Your task to perform on an android device: Go to Android settings Image 0: 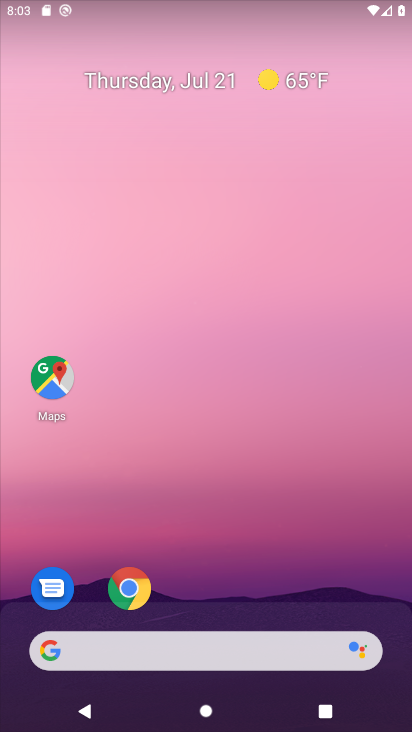
Step 0: drag from (214, 628) to (108, 47)
Your task to perform on an android device: Go to Android settings Image 1: 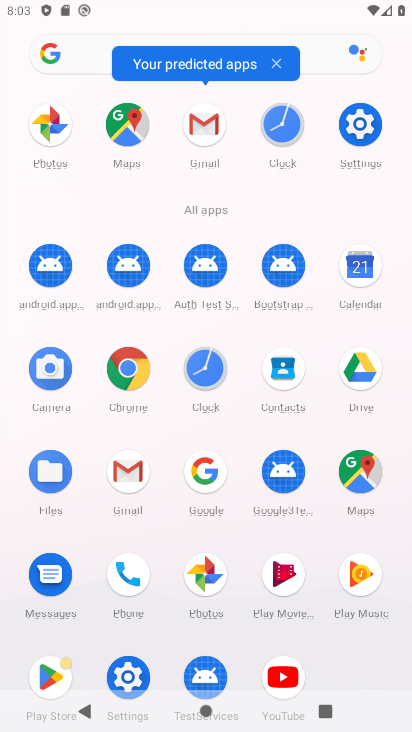
Step 1: click (366, 139)
Your task to perform on an android device: Go to Android settings Image 2: 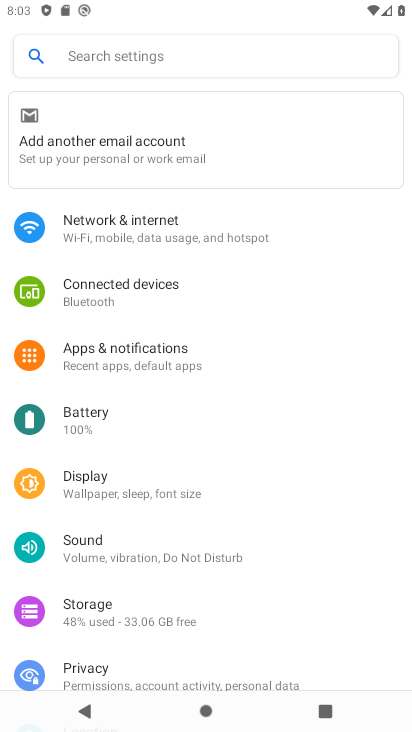
Step 2: click (152, 220)
Your task to perform on an android device: Go to Android settings Image 3: 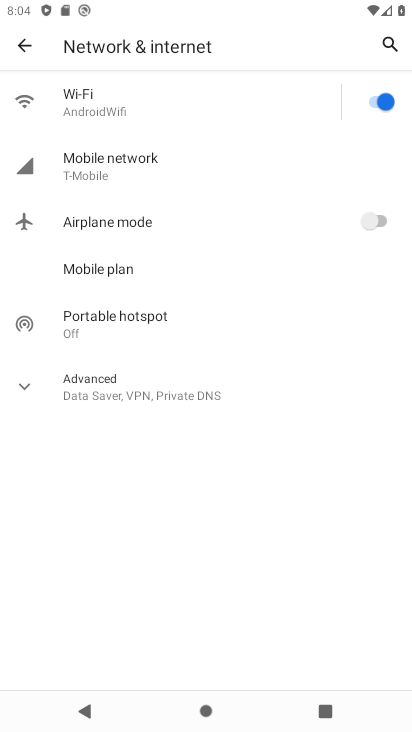
Step 3: click (118, 175)
Your task to perform on an android device: Go to Android settings Image 4: 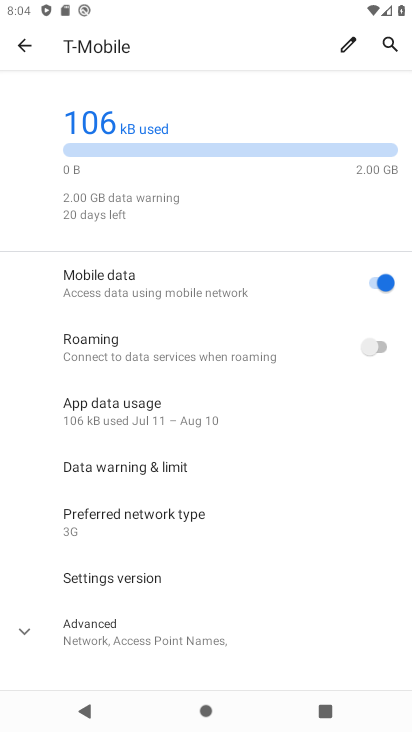
Step 4: click (149, 635)
Your task to perform on an android device: Go to Android settings Image 5: 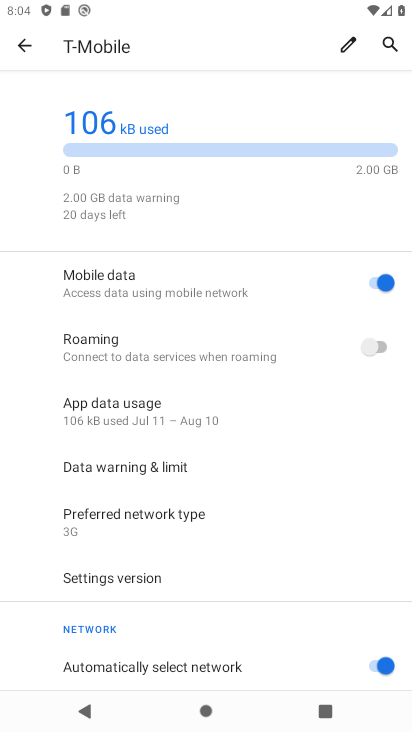
Step 5: click (20, 53)
Your task to perform on an android device: Go to Android settings Image 6: 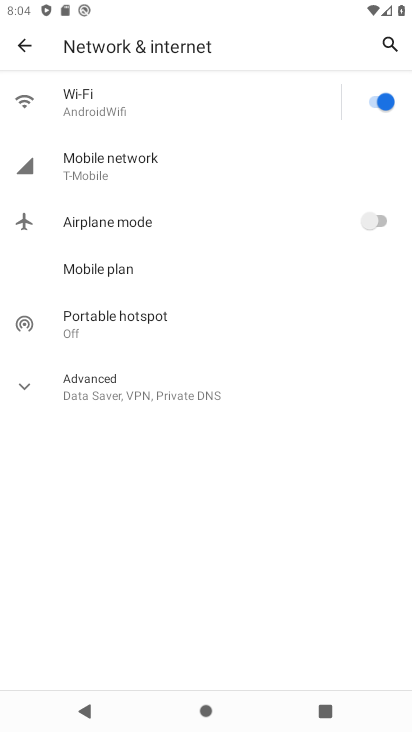
Step 6: click (22, 43)
Your task to perform on an android device: Go to Android settings Image 7: 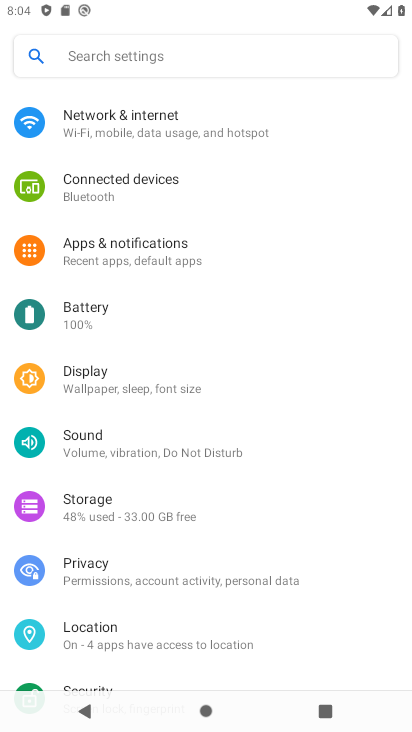
Step 7: task complete